Your task to perform on an android device: change your default location settings in chrome Image 0: 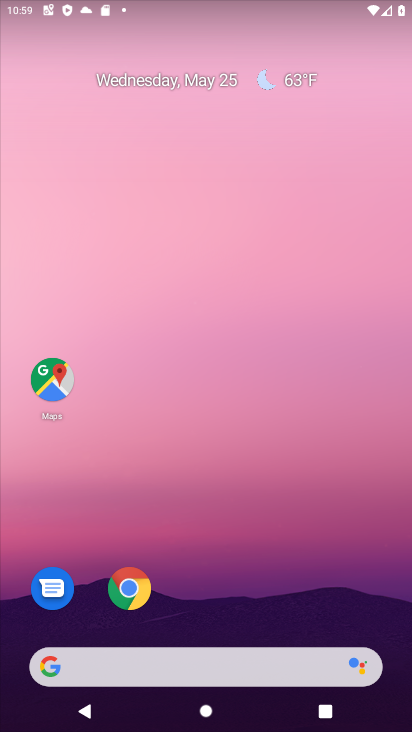
Step 0: click (300, 350)
Your task to perform on an android device: change your default location settings in chrome Image 1: 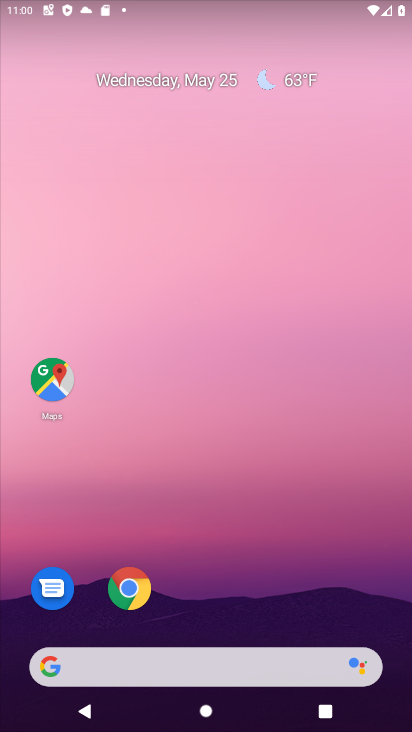
Step 1: click (129, 582)
Your task to perform on an android device: change your default location settings in chrome Image 2: 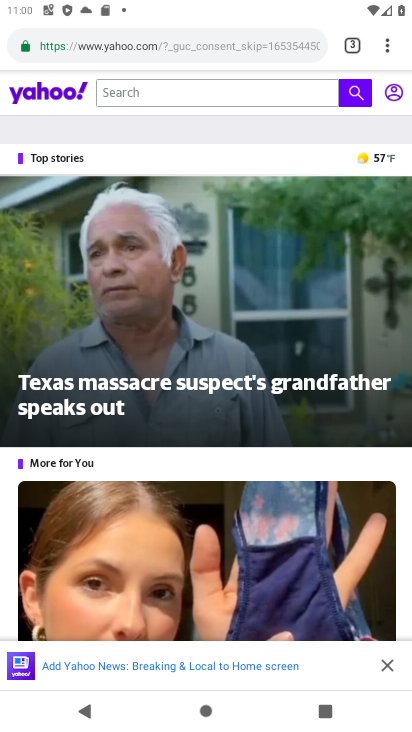
Step 2: click (385, 40)
Your task to perform on an android device: change your default location settings in chrome Image 3: 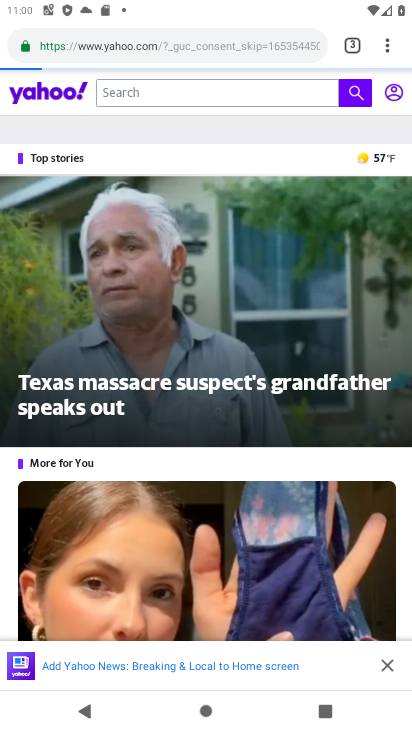
Step 3: click (391, 56)
Your task to perform on an android device: change your default location settings in chrome Image 4: 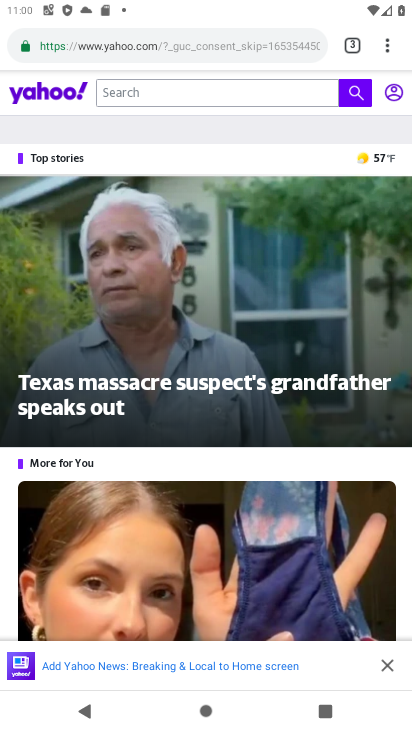
Step 4: click (392, 56)
Your task to perform on an android device: change your default location settings in chrome Image 5: 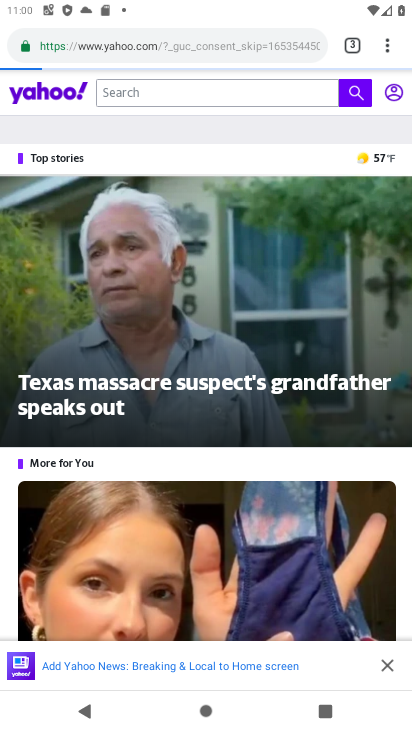
Step 5: click (388, 56)
Your task to perform on an android device: change your default location settings in chrome Image 6: 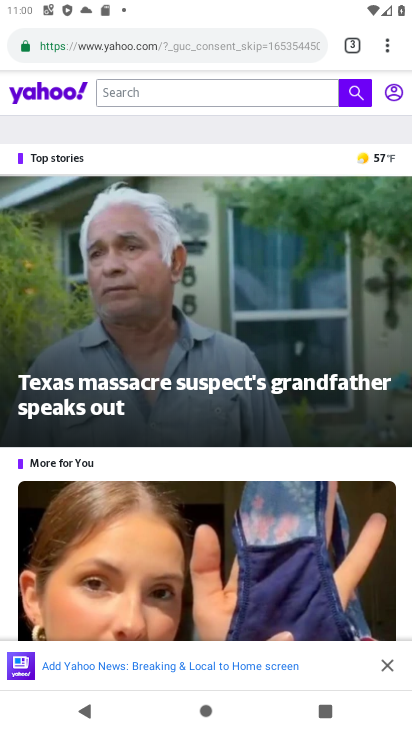
Step 6: click (383, 31)
Your task to perform on an android device: change your default location settings in chrome Image 7: 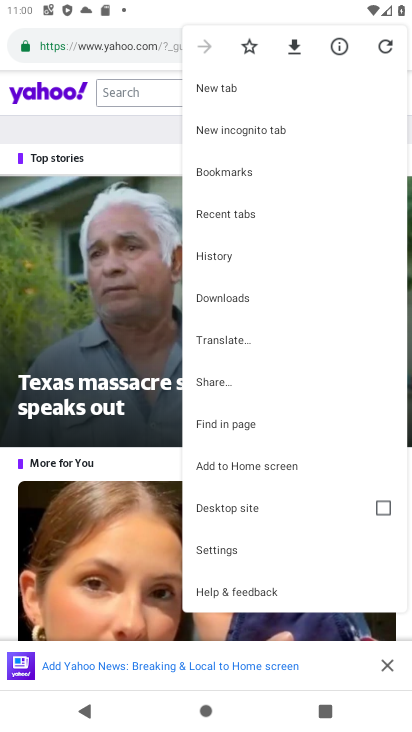
Step 7: click (233, 545)
Your task to perform on an android device: change your default location settings in chrome Image 8: 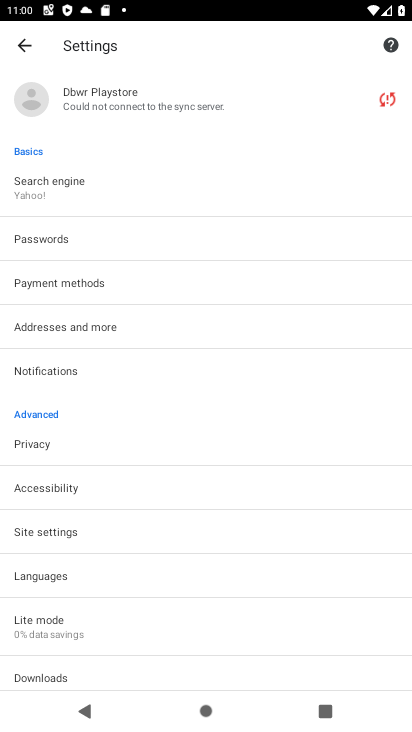
Step 8: click (68, 532)
Your task to perform on an android device: change your default location settings in chrome Image 9: 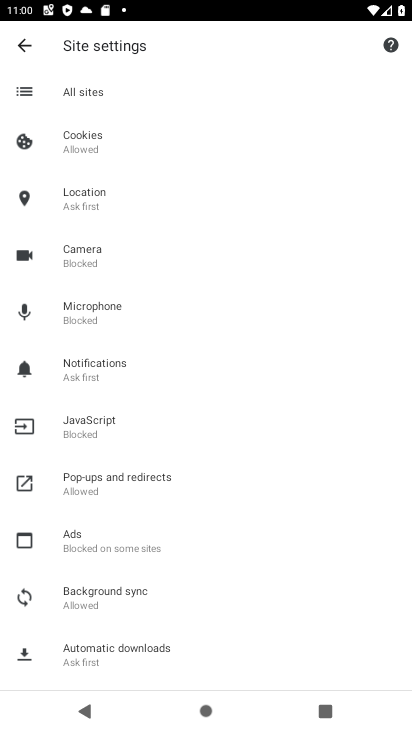
Step 9: click (106, 189)
Your task to perform on an android device: change your default location settings in chrome Image 10: 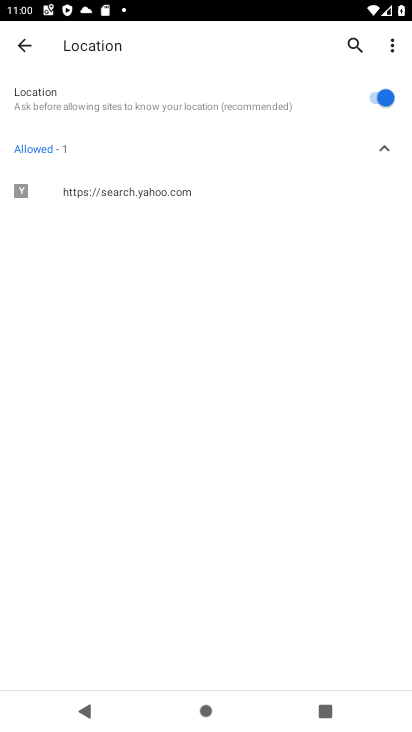
Step 10: click (363, 100)
Your task to perform on an android device: change your default location settings in chrome Image 11: 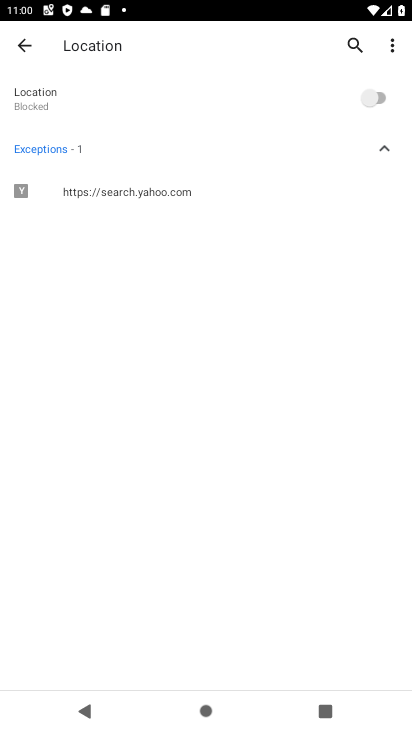
Step 11: task complete